Your task to perform on an android device: turn on airplane mode Image 0: 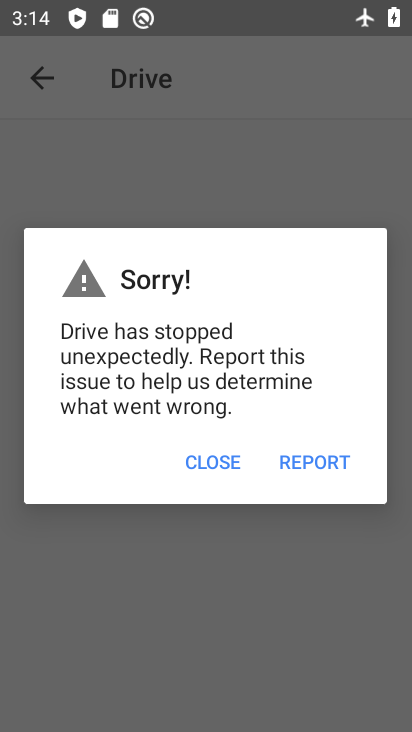
Step 0: press back button
Your task to perform on an android device: turn on airplane mode Image 1: 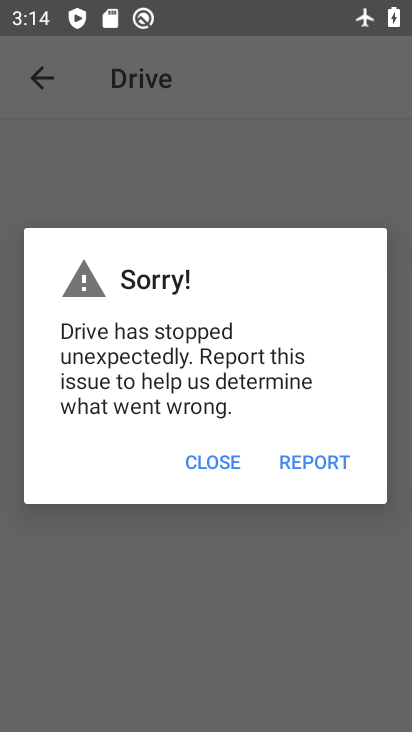
Step 1: task complete